Your task to perform on an android device: Open eBay Image 0: 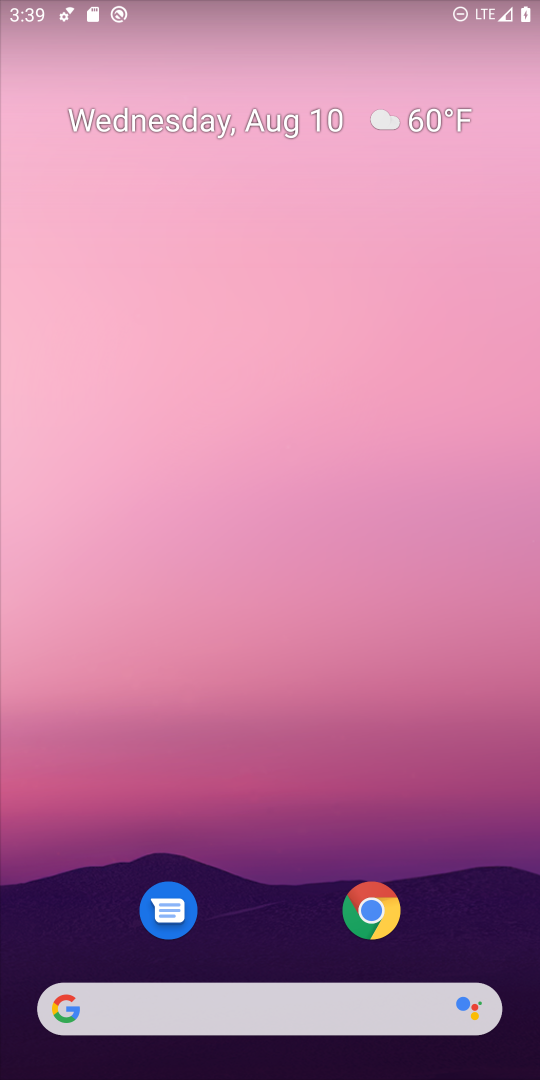
Step 0: click (380, 915)
Your task to perform on an android device: Open eBay Image 1: 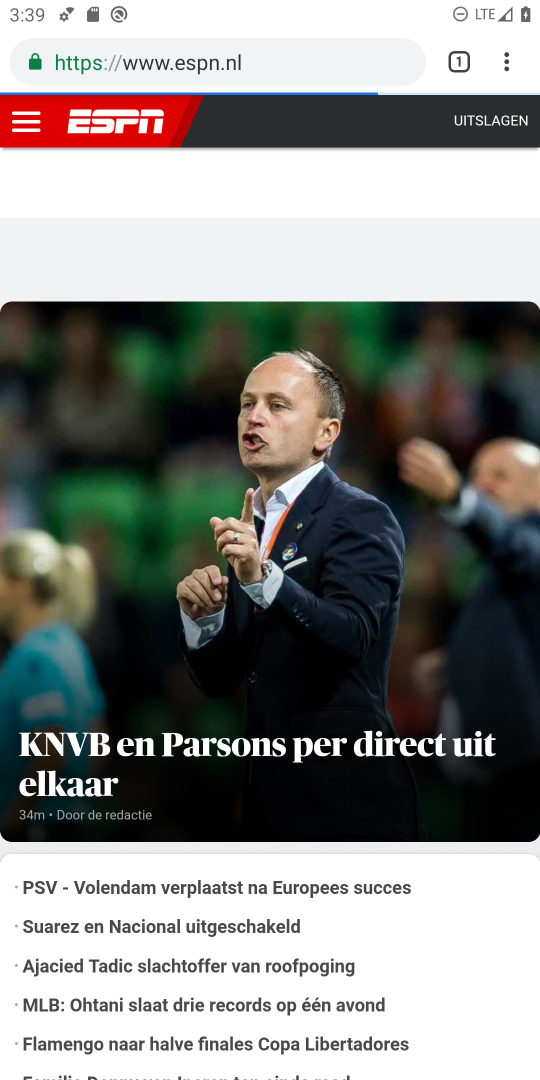
Step 1: click (454, 59)
Your task to perform on an android device: Open eBay Image 2: 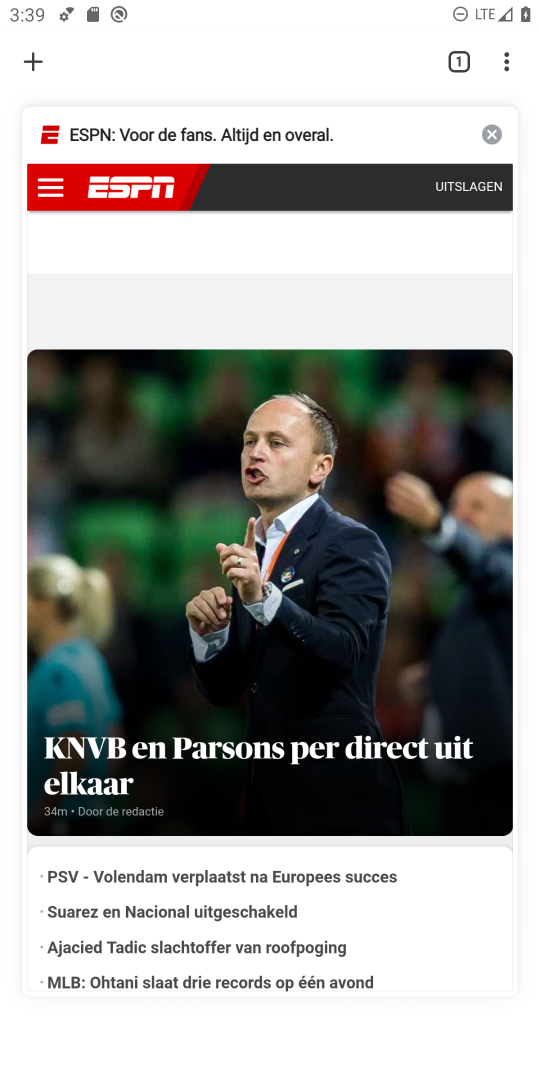
Step 2: click (26, 54)
Your task to perform on an android device: Open eBay Image 3: 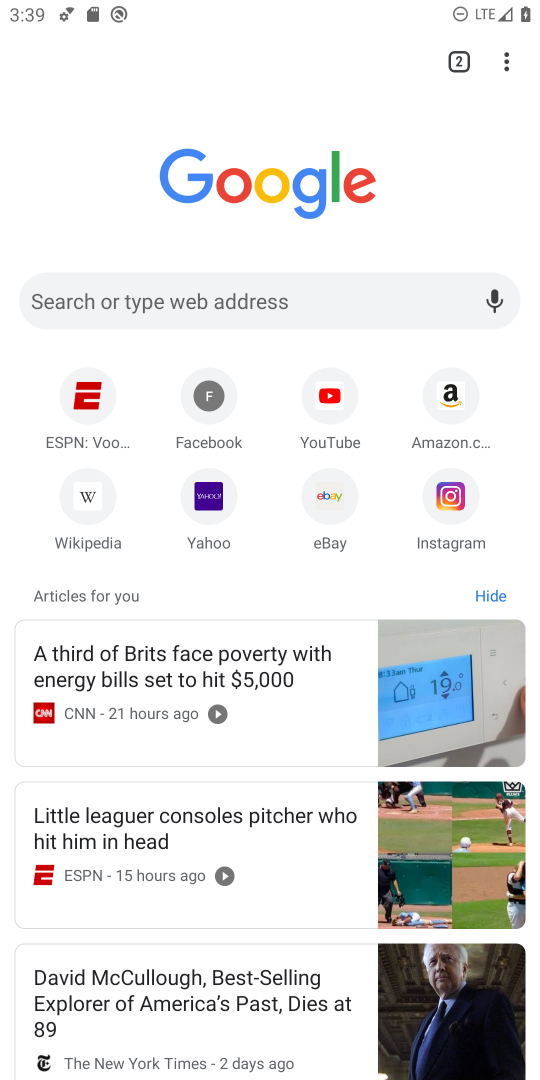
Step 3: click (329, 498)
Your task to perform on an android device: Open eBay Image 4: 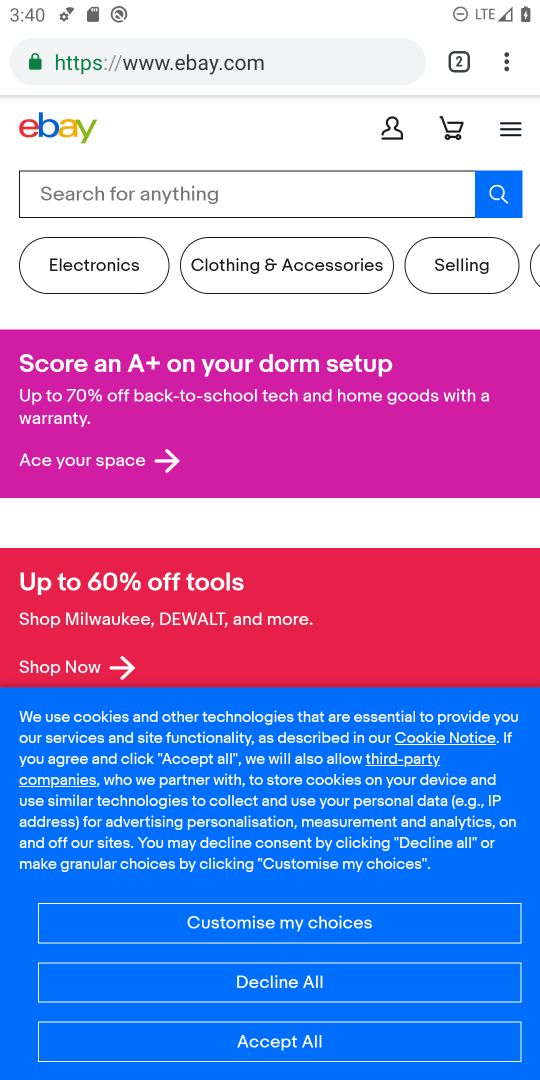
Step 4: click (254, 1055)
Your task to perform on an android device: Open eBay Image 5: 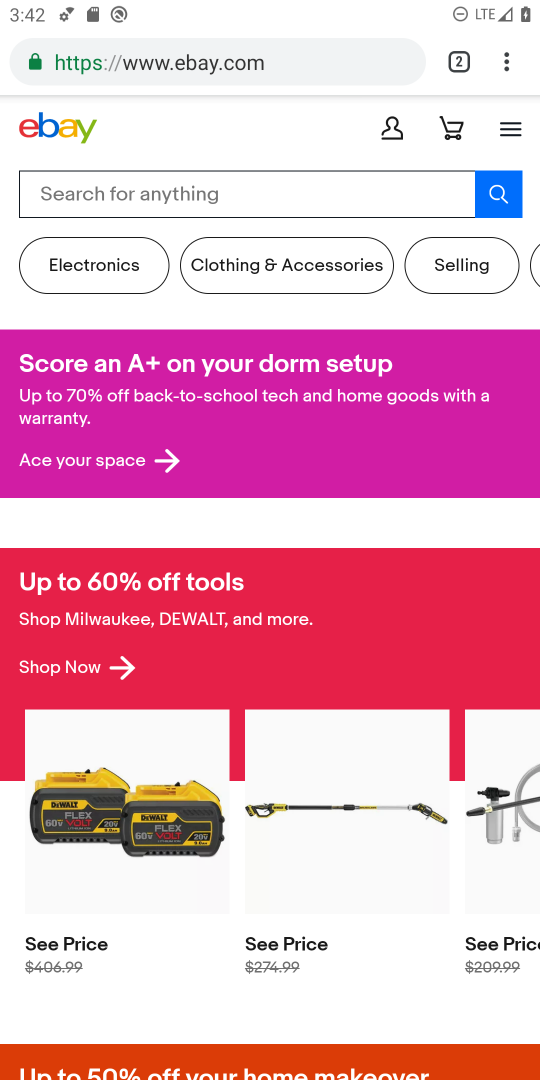
Step 5: task complete